Your task to perform on an android device: Open the map Image 0: 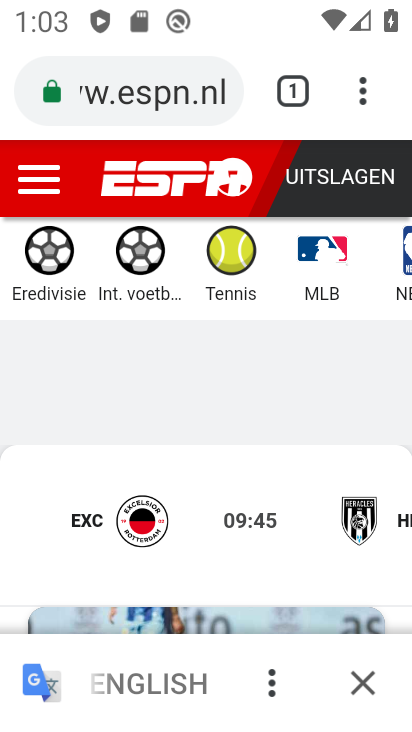
Step 0: press home button
Your task to perform on an android device: Open the map Image 1: 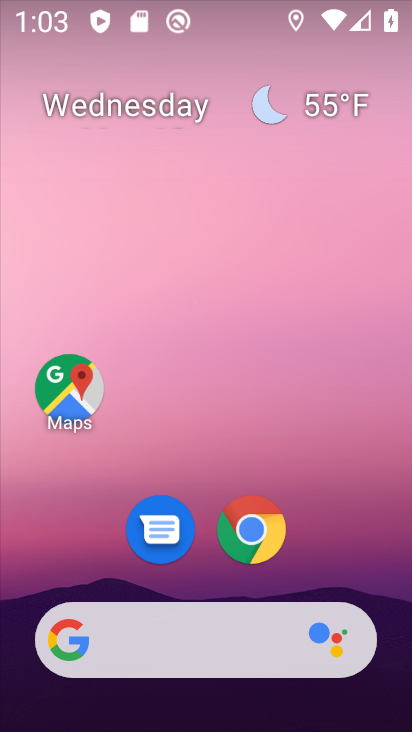
Step 1: drag from (216, 691) to (220, 122)
Your task to perform on an android device: Open the map Image 2: 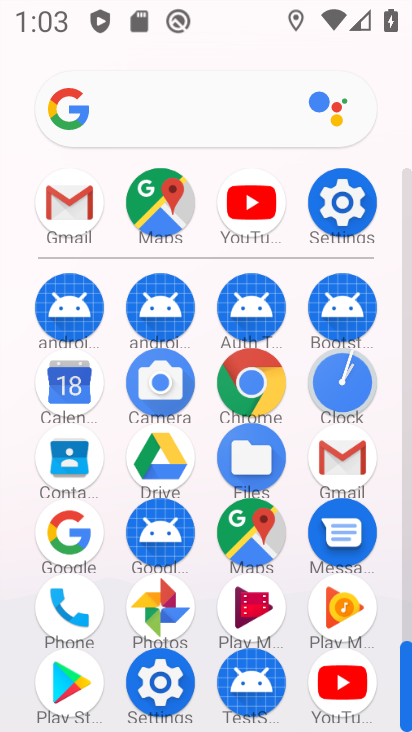
Step 2: click (252, 533)
Your task to perform on an android device: Open the map Image 3: 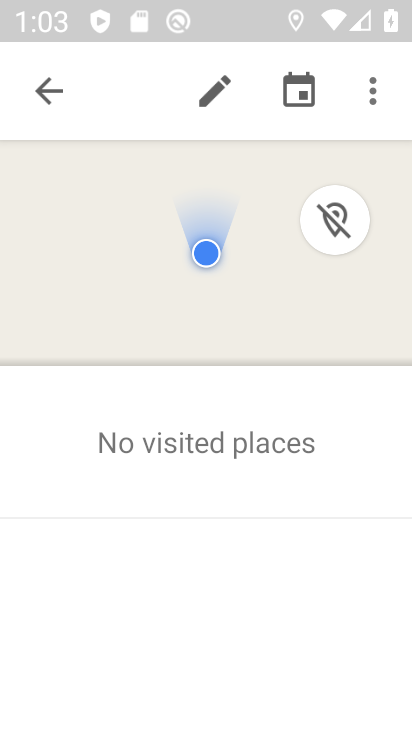
Step 3: click (49, 86)
Your task to perform on an android device: Open the map Image 4: 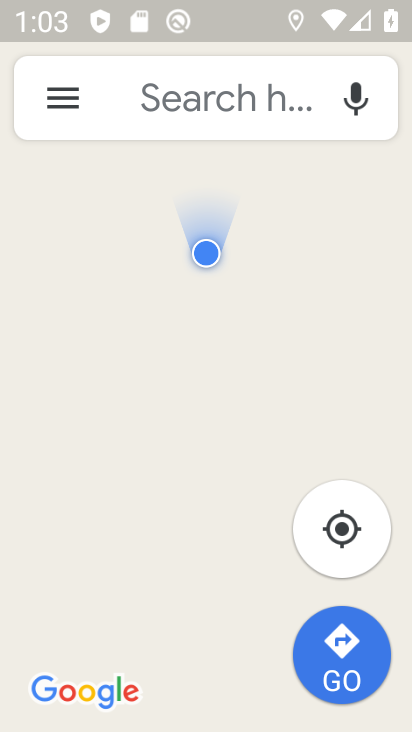
Step 4: task complete